Your task to perform on an android device: turn on improve location accuracy Image 0: 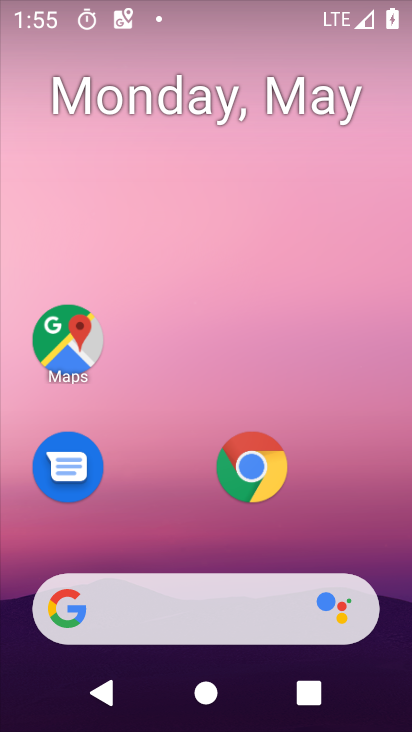
Step 0: drag from (178, 570) to (219, 158)
Your task to perform on an android device: turn on improve location accuracy Image 1: 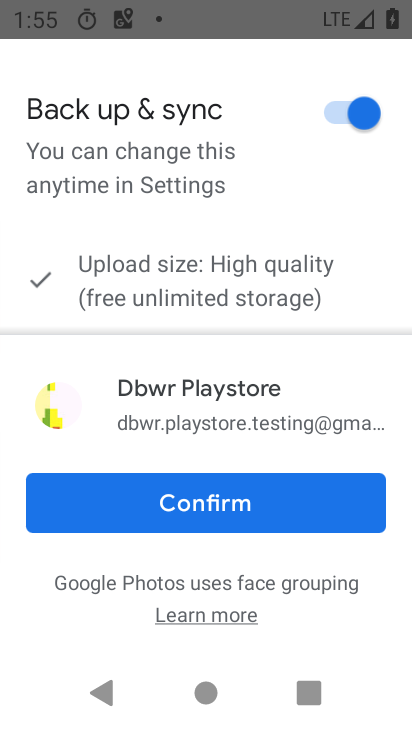
Step 1: press home button
Your task to perform on an android device: turn on improve location accuracy Image 2: 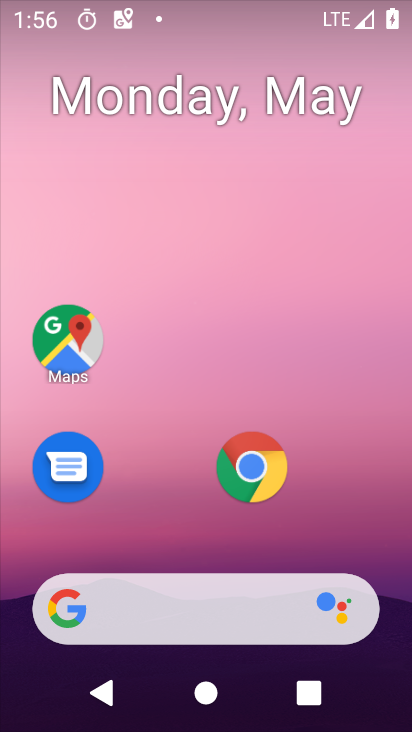
Step 2: drag from (172, 526) to (229, 154)
Your task to perform on an android device: turn on improve location accuracy Image 3: 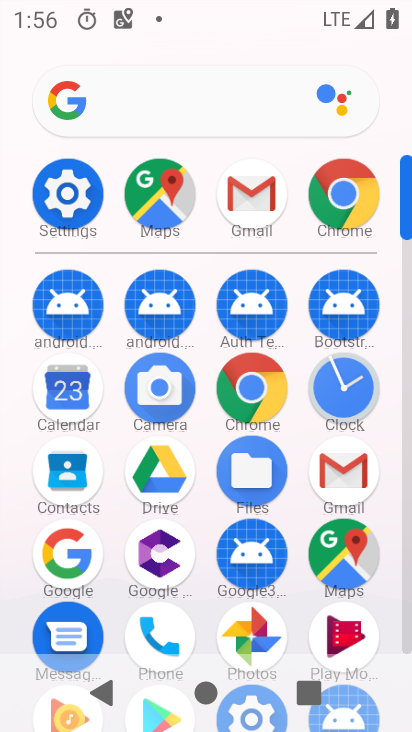
Step 3: click (57, 194)
Your task to perform on an android device: turn on improve location accuracy Image 4: 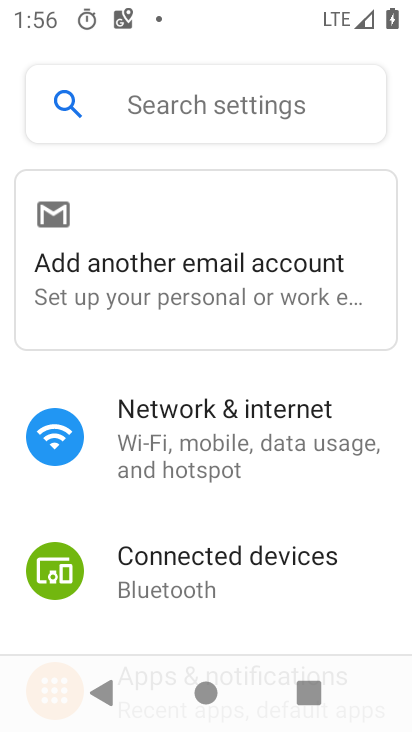
Step 4: drag from (243, 584) to (236, 220)
Your task to perform on an android device: turn on improve location accuracy Image 5: 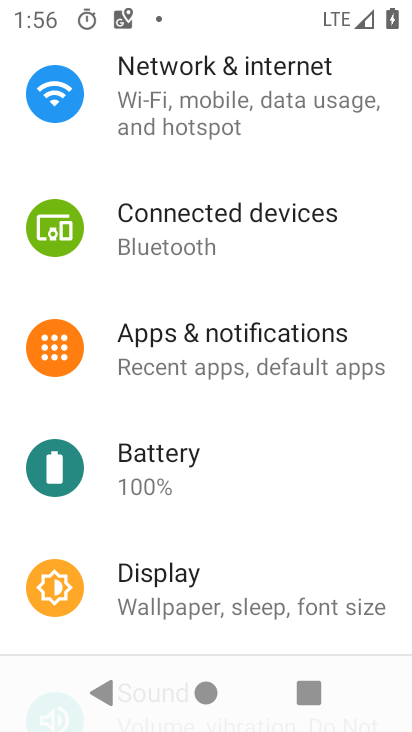
Step 5: drag from (229, 572) to (271, 176)
Your task to perform on an android device: turn on improve location accuracy Image 6: 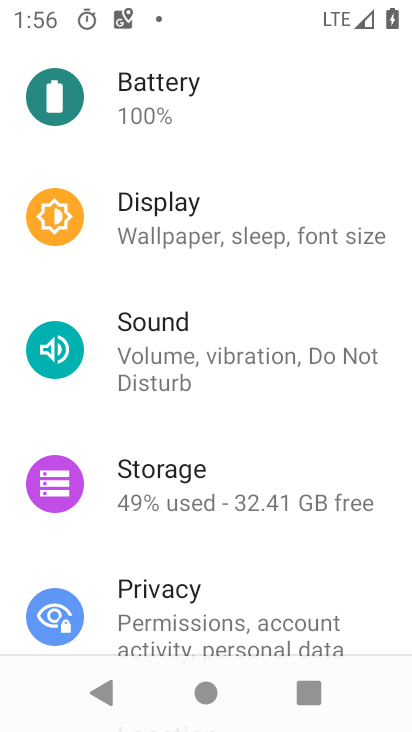
Step 6: drag from (201, 593) to (222, 280)
Your task to perform on an android device: turn on improve location accuracy Image 7: 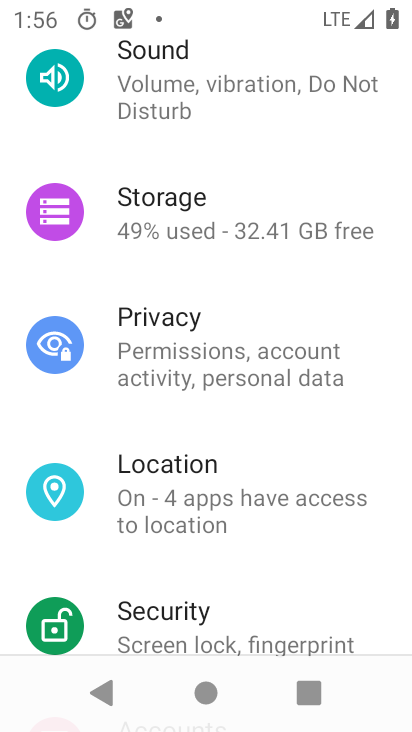
Step 7: drag from (284, 609) to (300, 711)
Your task to perform on an android device: turn on improve location accuracy Image 8: 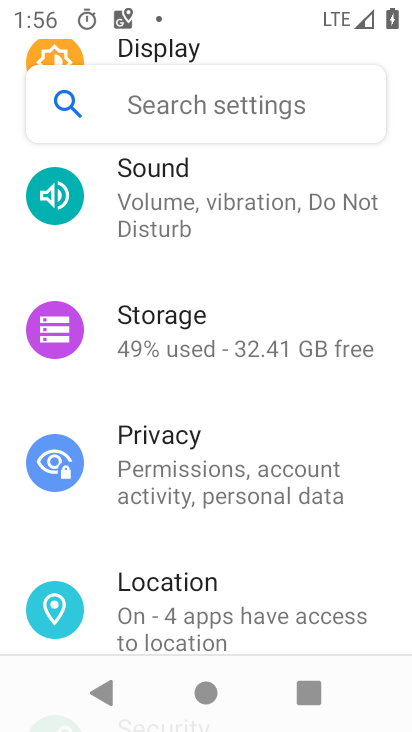
Step 8: click (181, 598)
Your task to perform on an android device: turn on improve location accuracy Image 9: 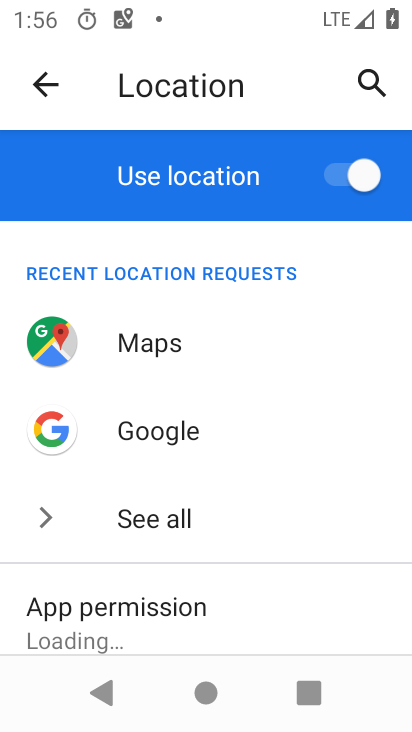
Step 9: drag from (211, 516) to (230, 173)
Your task to perform on an android device: turn on improve location accuracy Image 10: 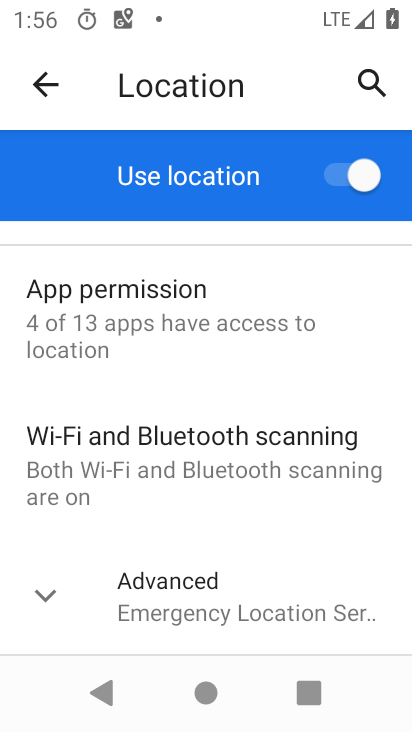
Step 10: click (136, 573)
Your task to perform on an android device: turn on improve location accuracy Image 11: 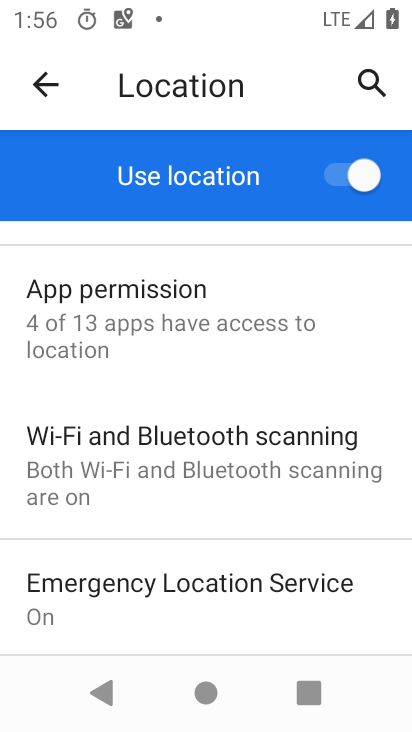
Step 11: drag from (254, 580) to (285, 180)
Your task to perform on an android device: turn on improve location accuracy Image 12: 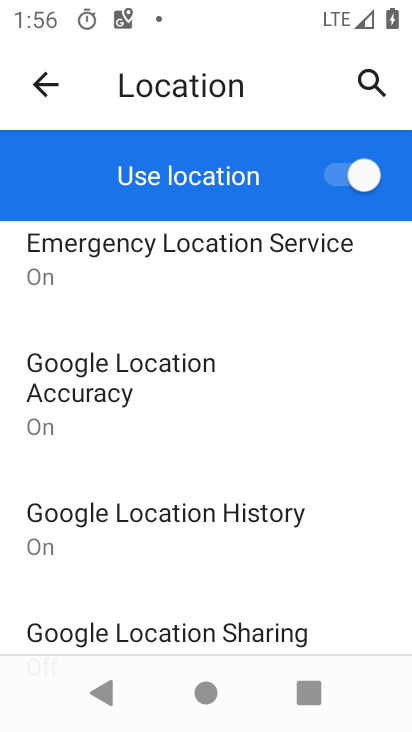
Step 12: click (119, 347)
Your task to perform on an android device: turn on improve location accuracy Image 13: 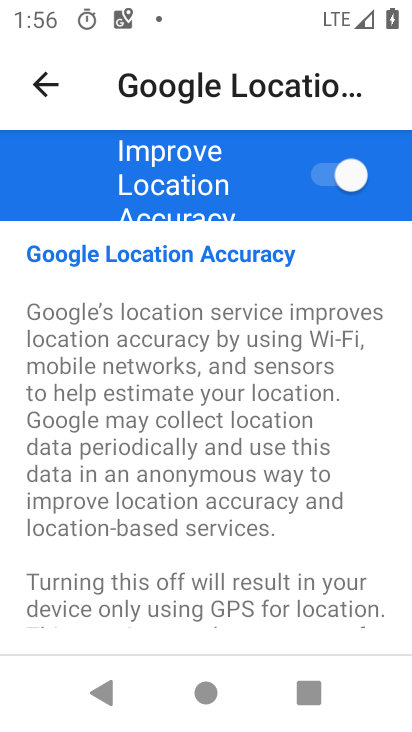
Step 13: task complete